Your task to perform on an android device: choose inbox layout in the gmail app Image 0: 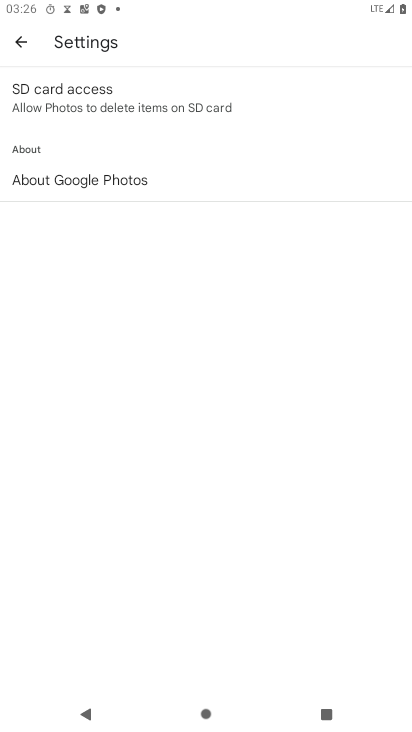
Step 0: press home button
Your task to perform on an android device: choose inbox layout in the gmail app Image 1: 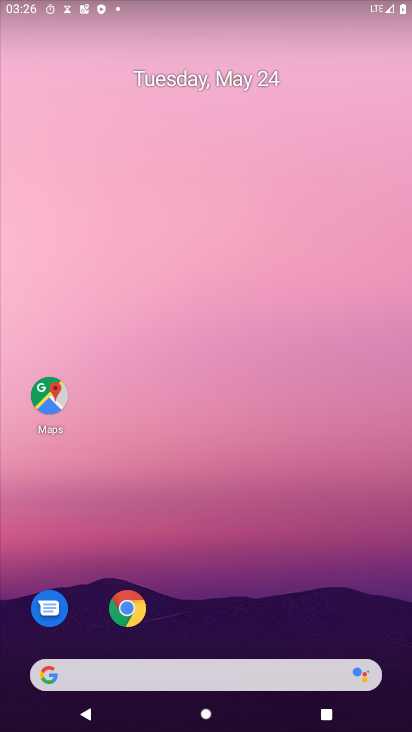
Step 1: drag from (244, 609) to (193, 110)
Your task to perform on an android device: choose inbox layout in the gmail app Image 2: 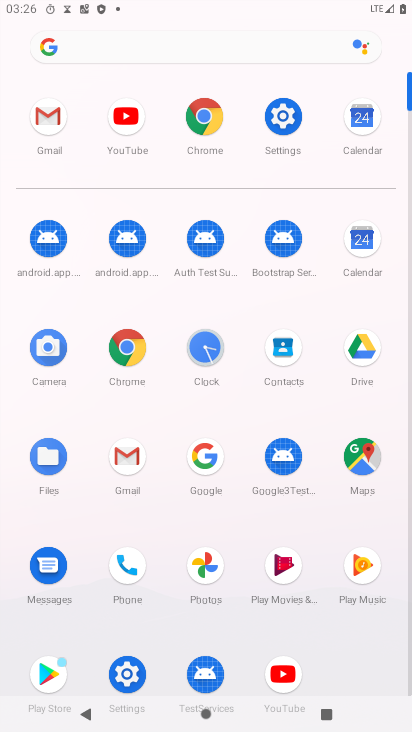
Step 2: click (47, 113)
Your task to perform on an android device: choose inbox layout in the gmail app Image 3: 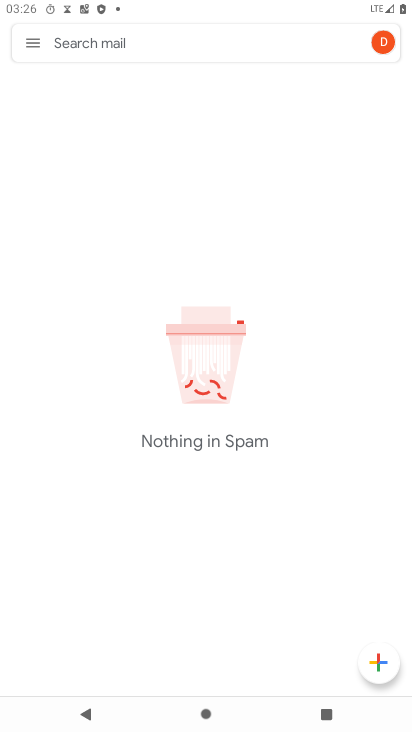
Step 3: click (34, 31)
Your task to perform on an android device: choose inbox layout in the gmail app Image 4: 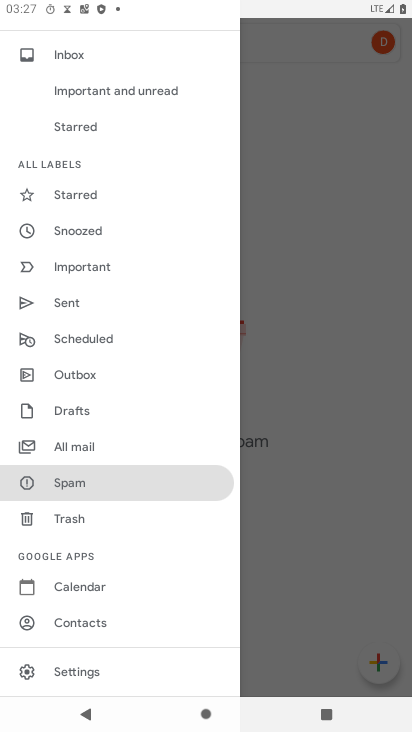
Step 4: click (156, 675)
Your task to perform on an android device: choose inbox layout in the gmail app Image 5: 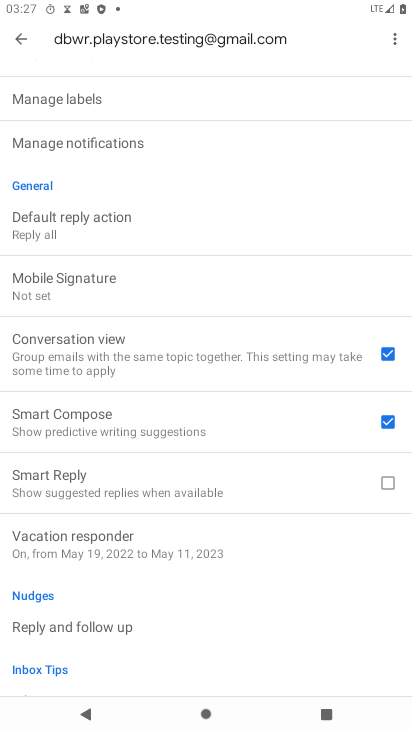
Step 5: drag from (137, 123) to (200, 724)
Your task to perform on an android device: choose inbox layout in the gmail app Image 6: 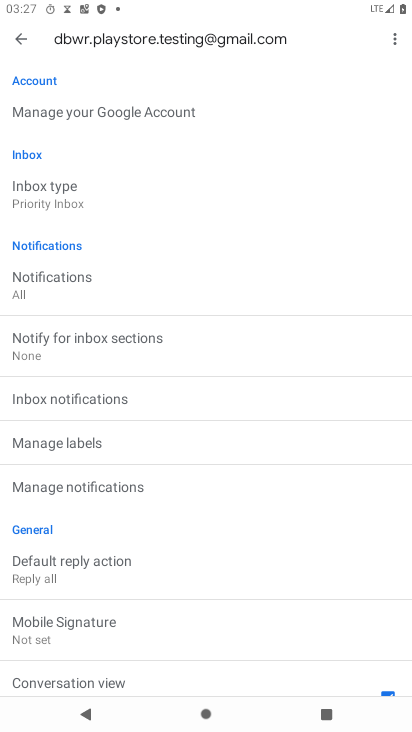
Step 6: click (69, 185)
Your task to perform on an android device: choose inbox layout in the gmail app Image 7: 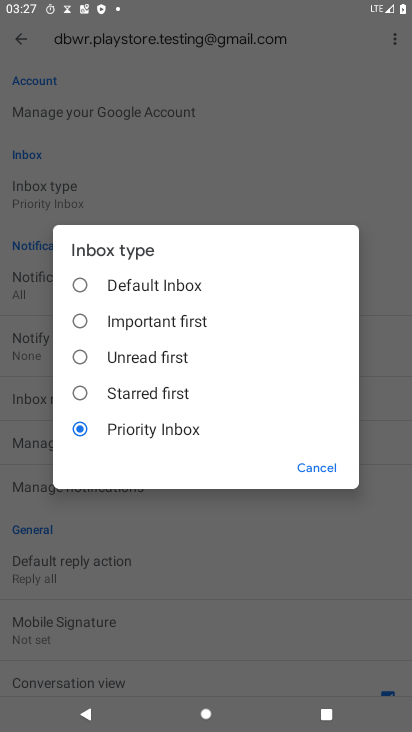
Step 7: click (148, 285)
Your task to perform on an android device: choose inbox layout in the gmail app Image 8: 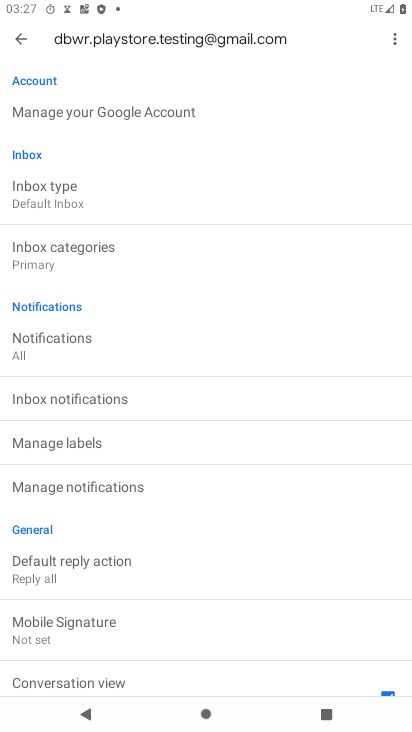
Step 8: task complete